Your task to perform on an android device: see tabs open on other devices in the chrome app Image 0: 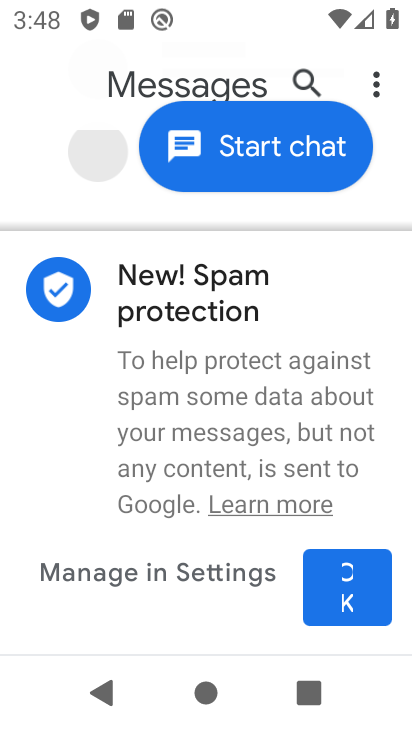
Step 0: press home button
Your task to perform on an android device: see tabs open on other devices in the chrome app Image 1: 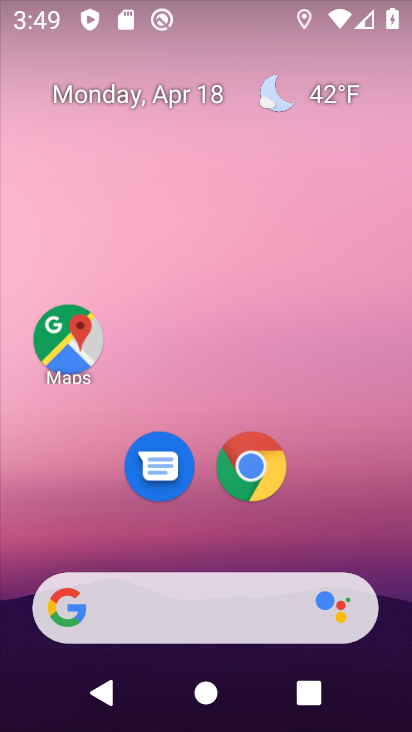
Step 1: click (257, 469)
Your task to perform on an android device: see tabs open on other devices in the chrome app Image 2: 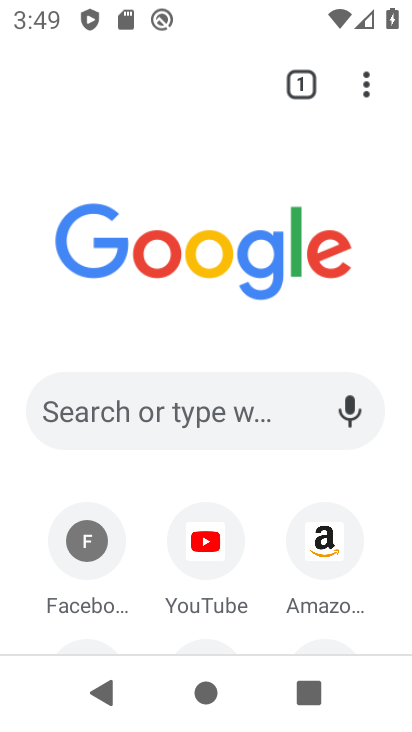
Step 2: click (359, 87)
Your task to perform on an android device: see tabs open on other devices in the chrome app Image 3: 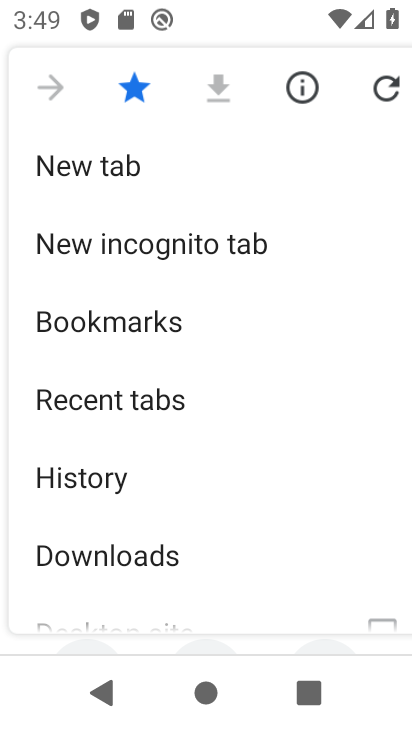
Step 3: click (108, 394)
Your task to perform on an android device: see tabs open on other devices in the chrome app Image 4: 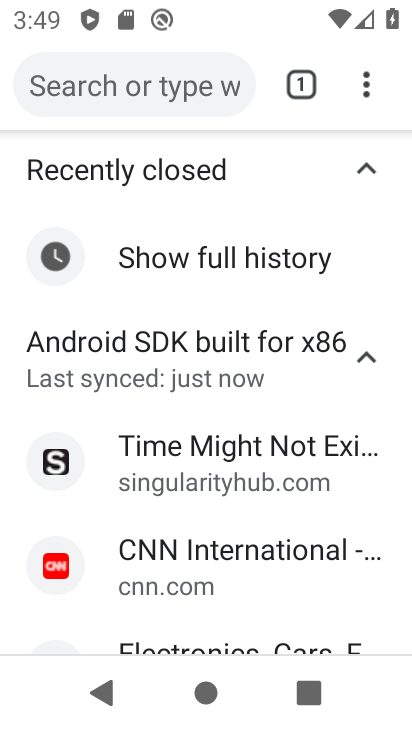
Step 4: task complete